Your task to perform on an android device: Open the calendar and show me this week's events? Image 0: 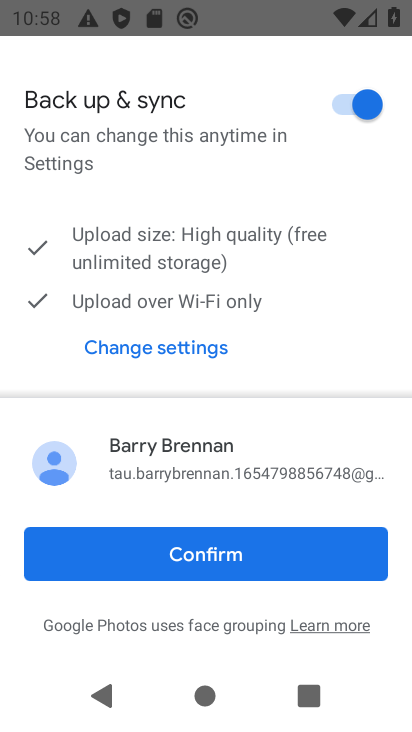
Step 0: press home button
Your task to perform on an android device: Open the calendar and show me this week's events? Image 1: 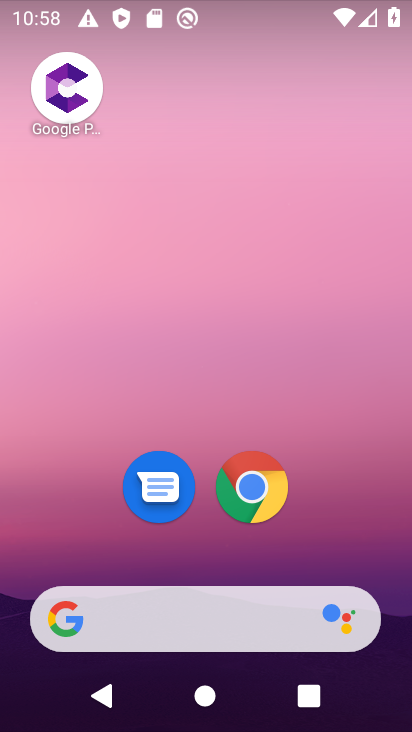
Step 1: drag from (362, 504) to (302, 16)
Your task to perform on an android device: Open the calendar and show me this week's events? Image 2: 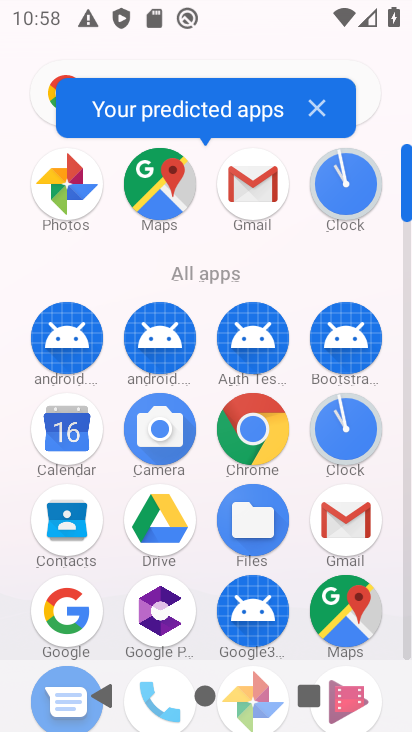
Step 2: click (70, 422)
Your task to perform on an android device: Open the calendar and show me this week's events? Image 3: 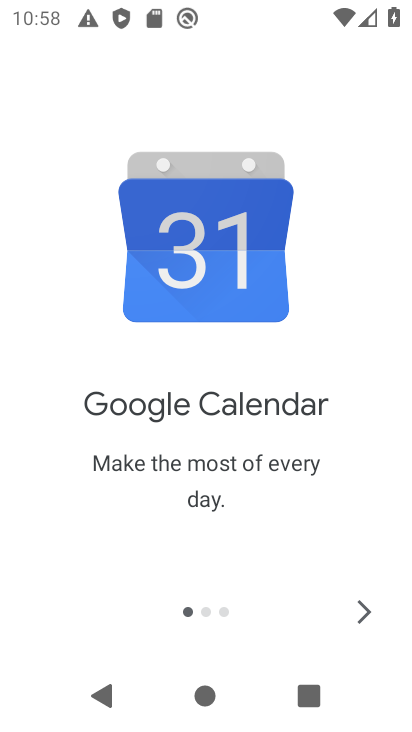
Step 3: click (370, 605)
Your task to perform on an android device: Open the calendar and show me this week's events? Image 4: 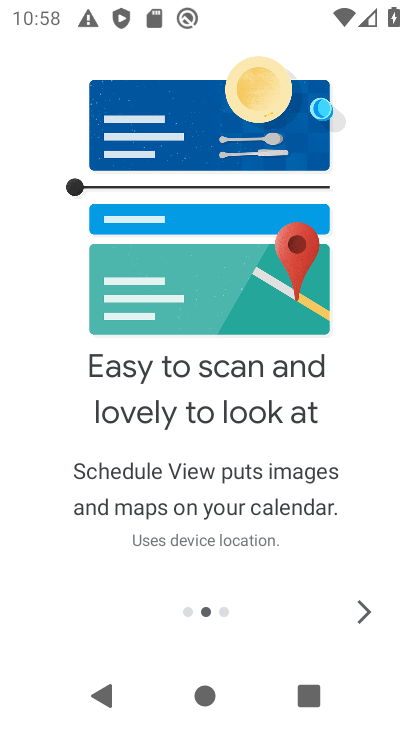
Step 4: click (370, 605)
Your task to perform on an android device: Open the calendar and show me this week's events? Image 5: 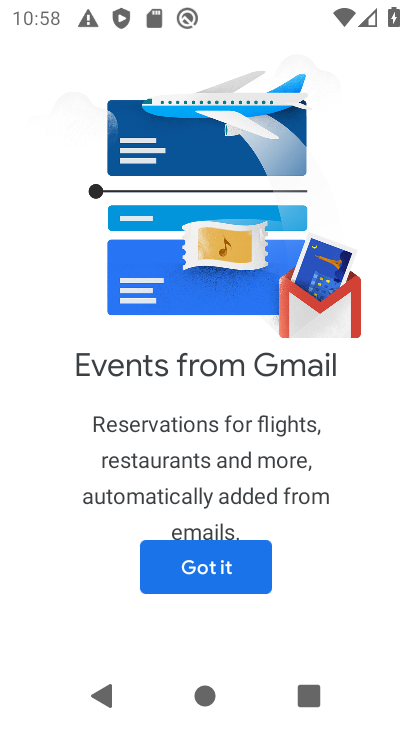
Step 5: click (246, 573)
Your task to perform on an android device: Open the calendar and show me this week's events? Image 6: 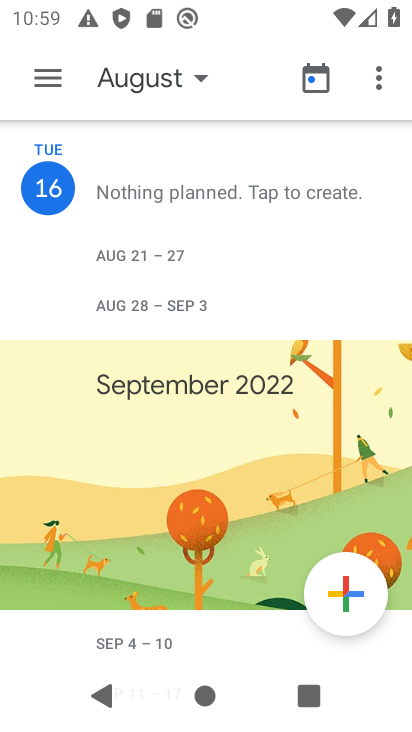
Step 6: click (57, 77)
Your task to perform on an android device: Open the calendar and show me this week's events? Image 7: 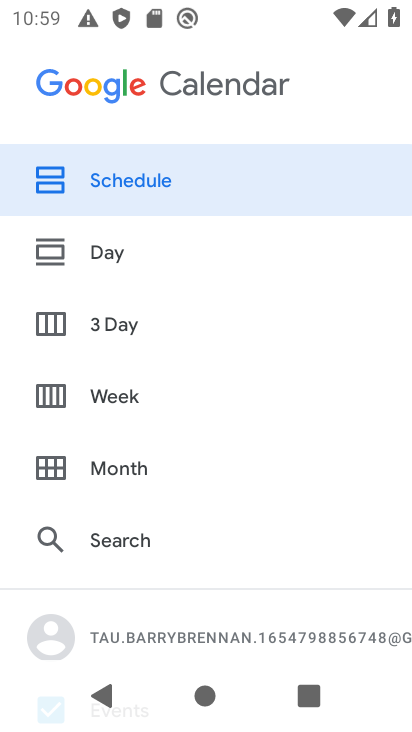
Step 7: click (127, 400)
Your task to perform on an android device: Open the calendar and show me this week's events? Image 8: 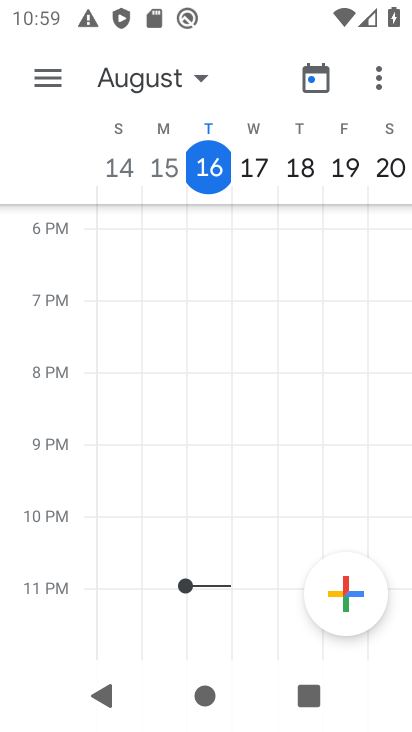
Step 8: task complete